Your task to perform on an android device: toggle priority inbox in the gmail app Image 0: 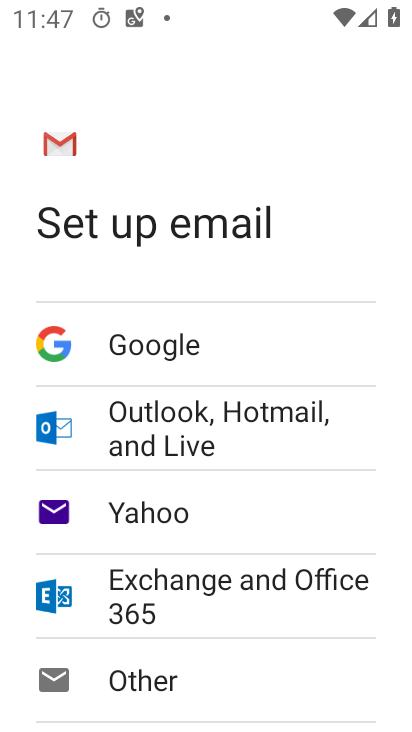
Step 0: press home button
Your task to perform on an android device: toggle priority inbox in the gmail app Image 1: 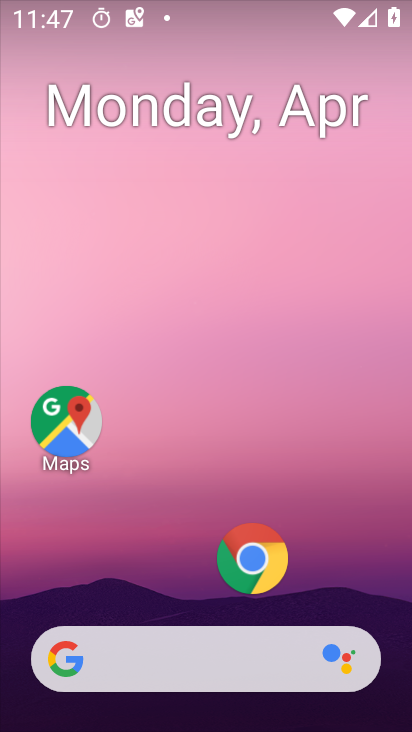
Step 1: drag from (163, 617) to (187, 188)
Your task to perform on an android device: toggle priority inbox in the gmail app Image 2: 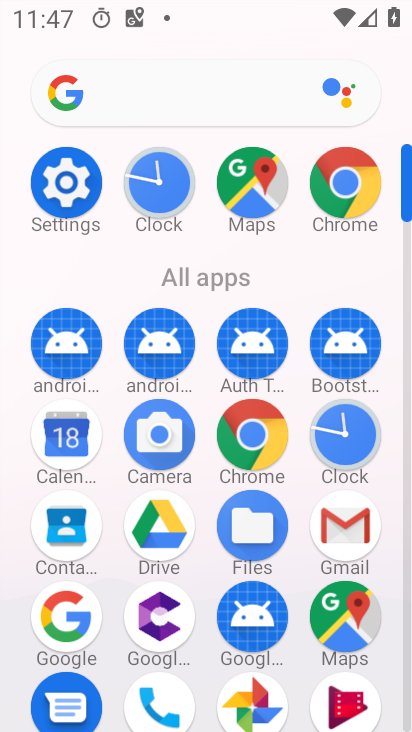
Step 2: click (359, 527)
Your task to perform on an android device: toggle priority inbox in the gmail app Image 3: 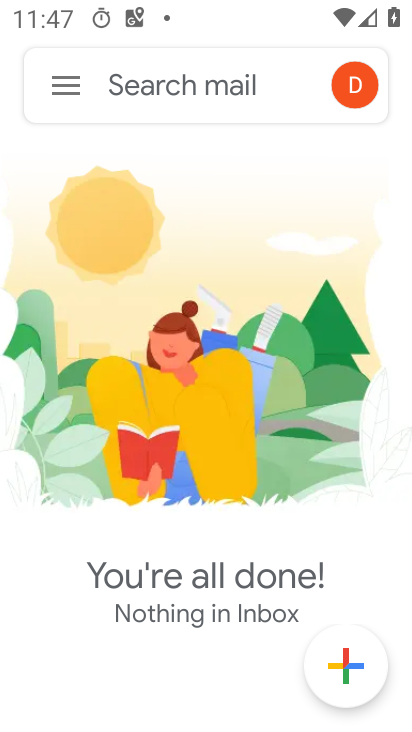
Step 3: click (70, 79)
Your task to perform on an android device: toggle priority inbox in the gmail app Image 4: 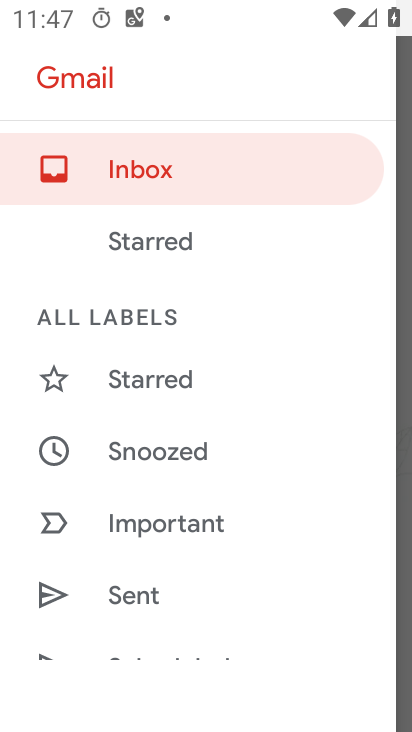
Step 4: drag from (198, 593) to (255, 117)
Your task to perform on an android device: toggle priority inbox in the gmail app Image 5: 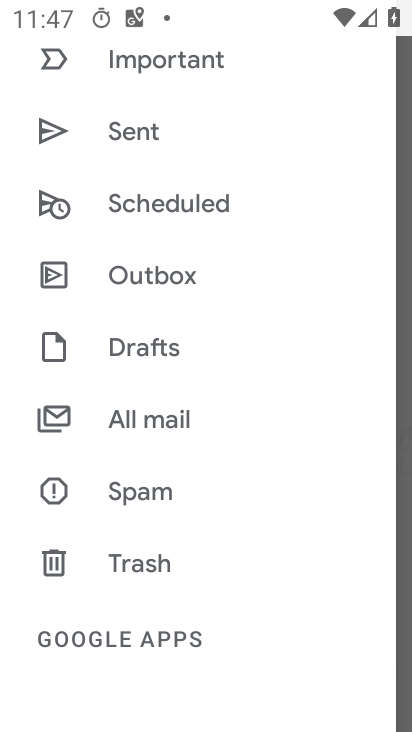
Step 5: drag from (217, 518) to (223, 199)
Your task to perform on an android device: toggle priority inbox in the gmail app Image 6: 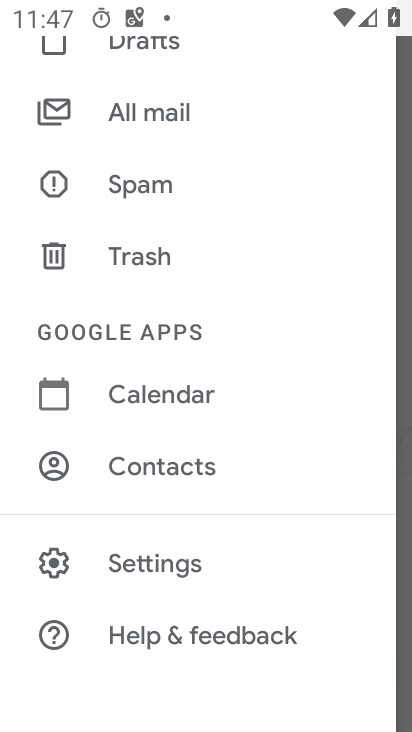
Step 6: drag from (187, 542) to (232, 289)
Your task to perform on an android device: toggle priority inbox in the gmail app Image 7: 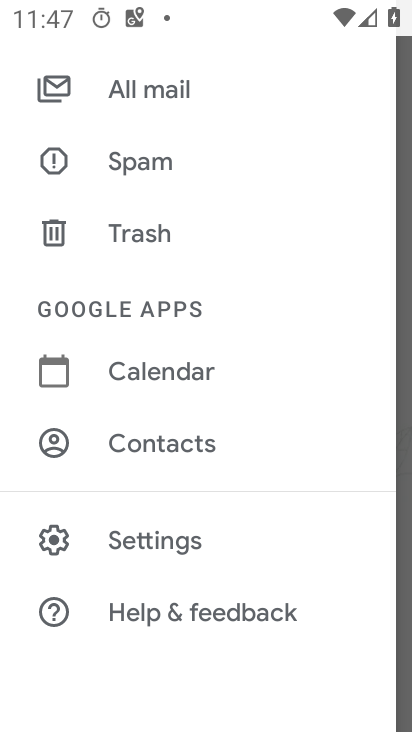
Step 7: click (160, 543)
Your task to perform on an android device: toggle priority inbox in the gmail app Image 8: 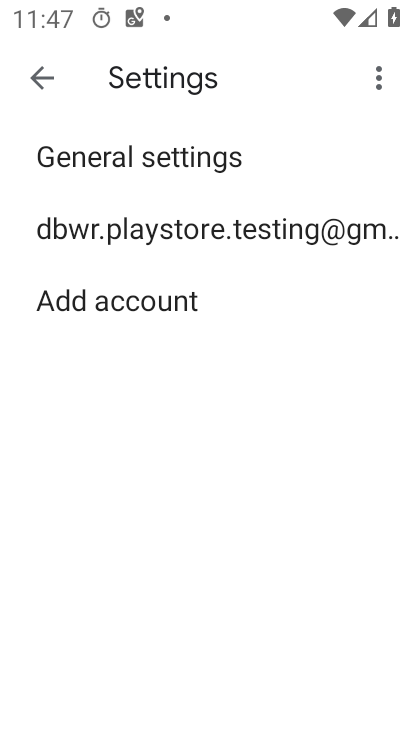
Step 8: click (141, 226)
Your task to perform on an android device: toggle priority inbox in the gmail app Image 9: 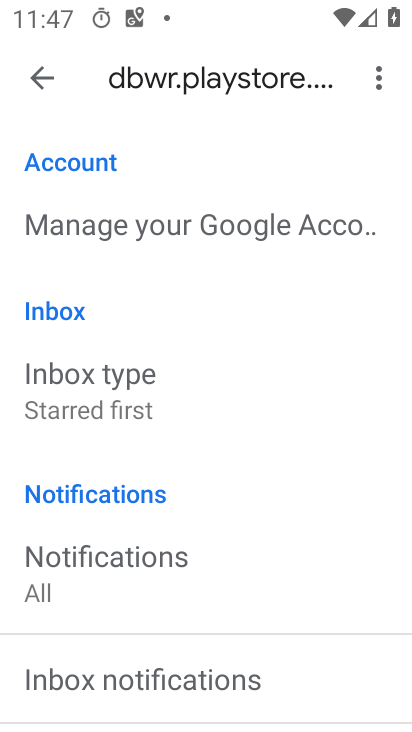
Step 9: click (118, 401)
Your task to perform on an android device: toggle priority inbox in the gmail app Image 10: 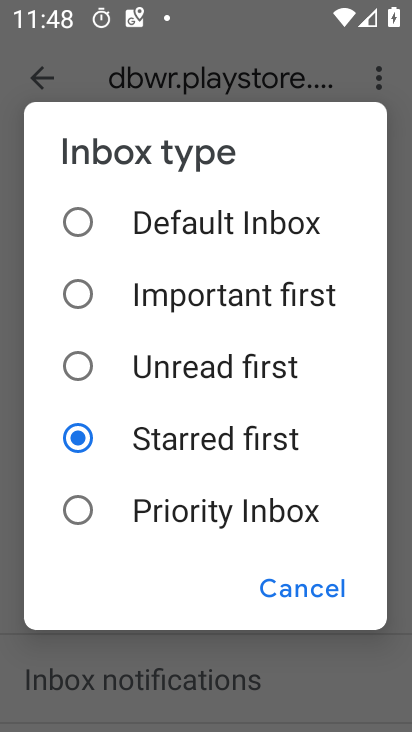
Step 10: click (78, 495)
Your task to perform on an android device: toggle priority inbox in the gmail app Image 11: 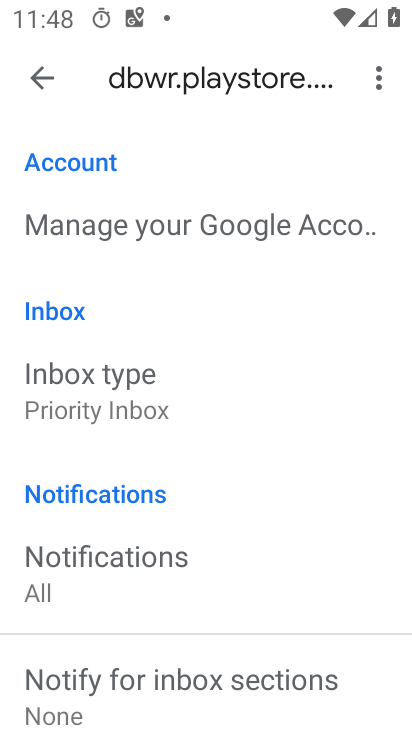
Step 11: task complete